Your task to perform on an android device: uninstall "Google News" Image 0: 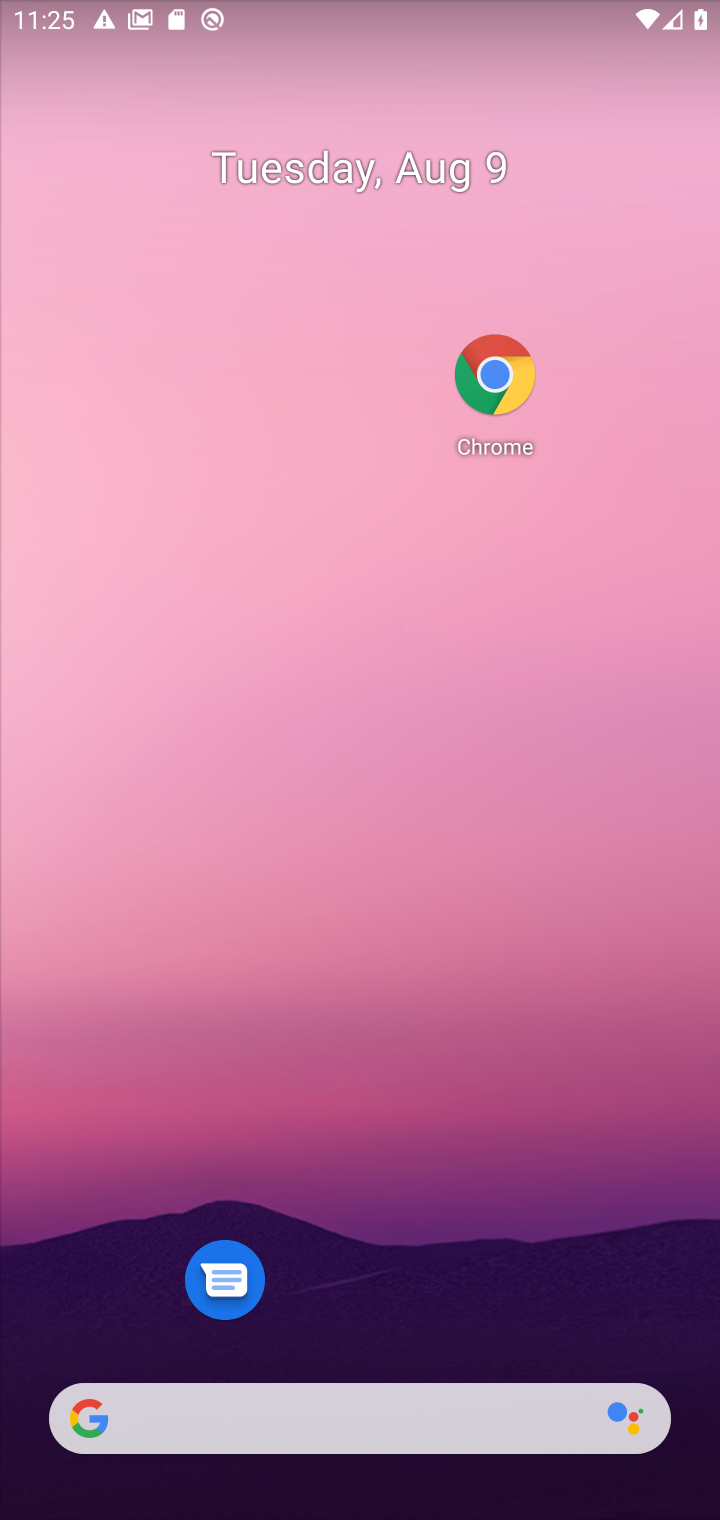
Step 0: drag from (442, 1361) to (364, 210)
Your task to perform on an android device: uninstall "Google News" Image 1: 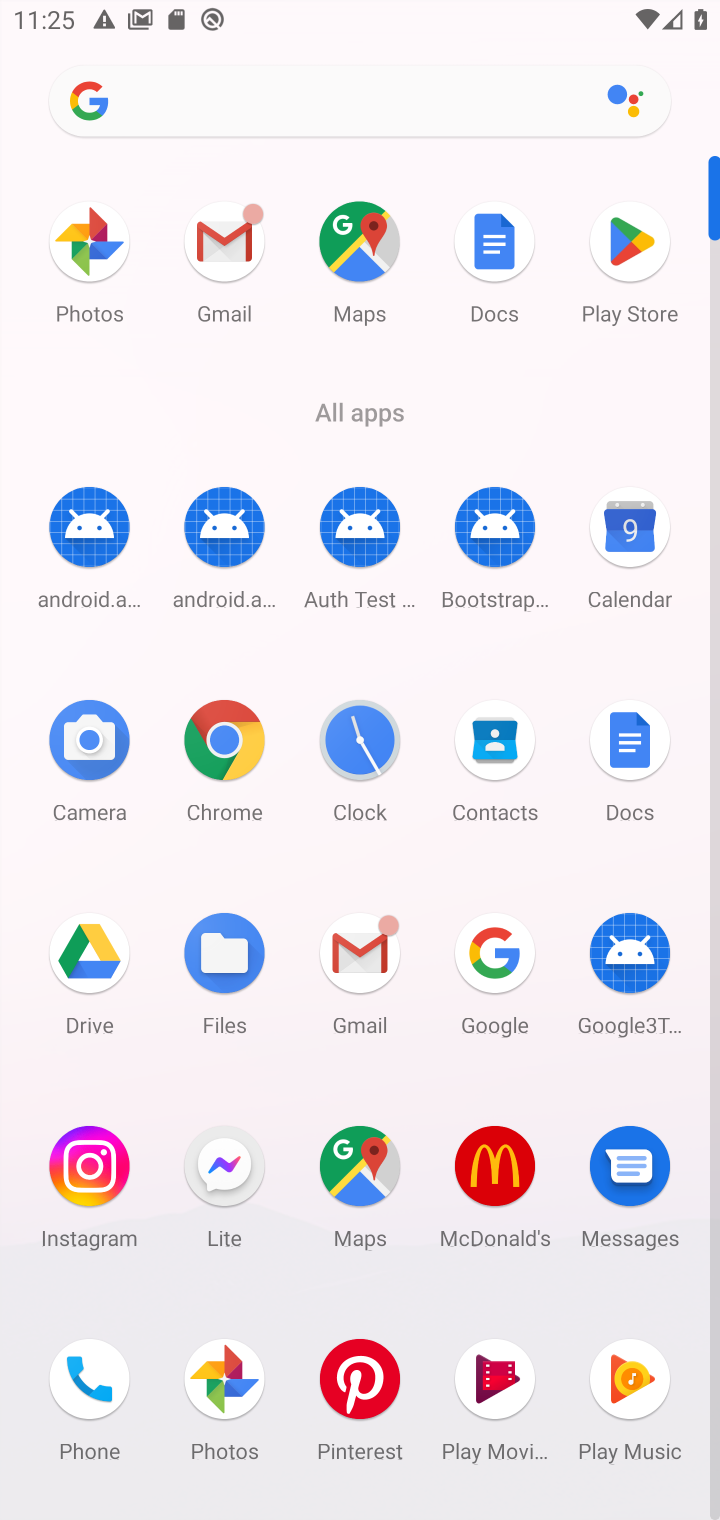
Step 1: click (615, 242)
Your task to perform on an android device: uninstall "Google News" Image 2: 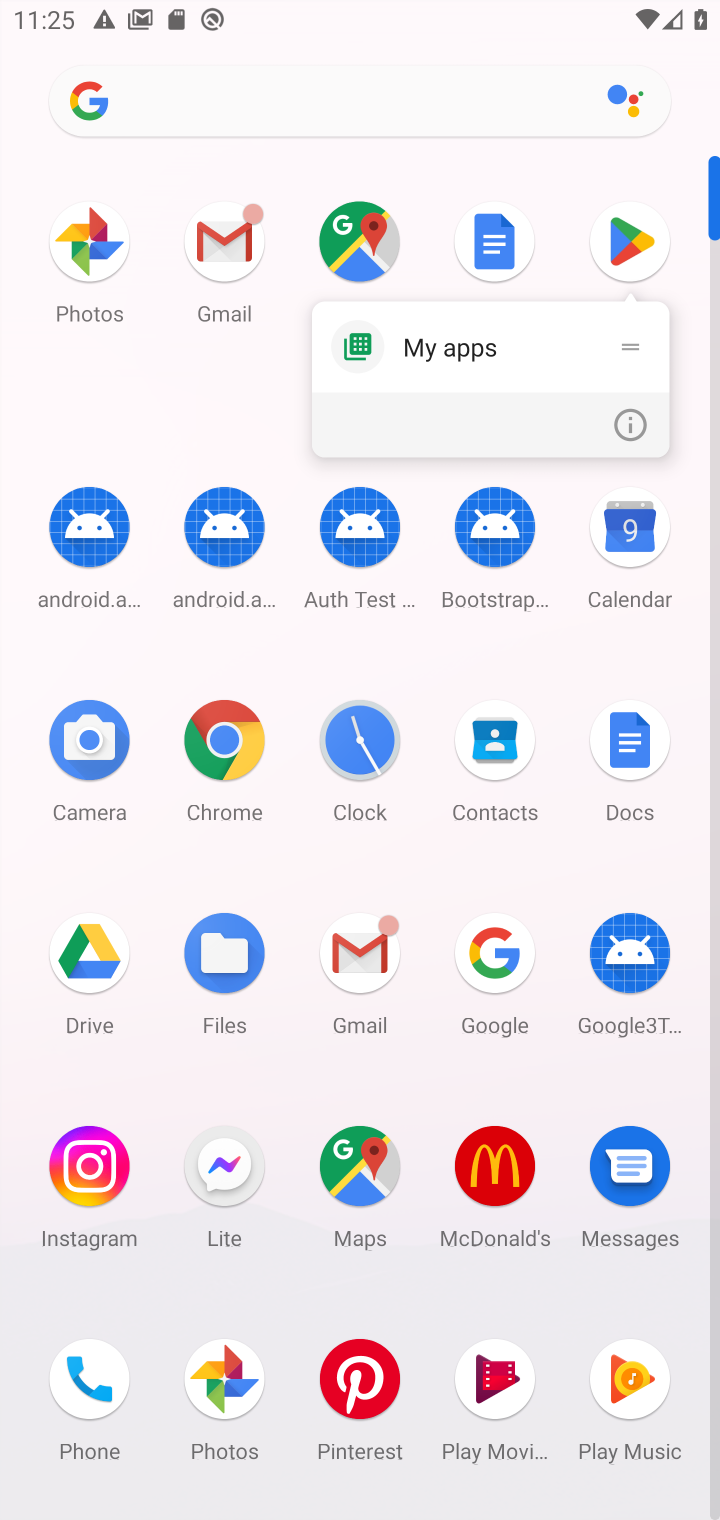
Step 2: click (557, 671)
Your task to perform on an android device: uninstall "Google News" Image 3: 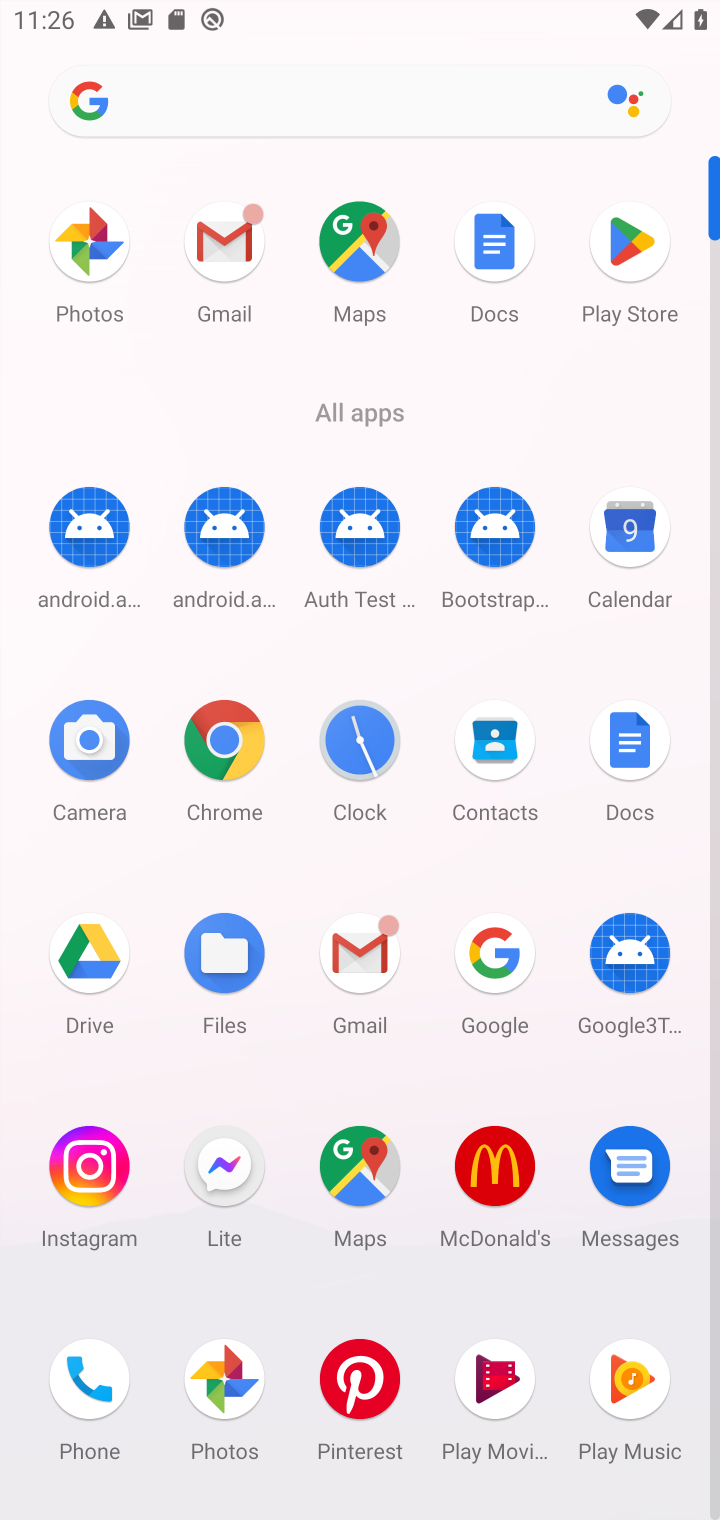
Step 3: click (622, 257)
Your task to perform on an android device: uninstall "Google News" Image 4: 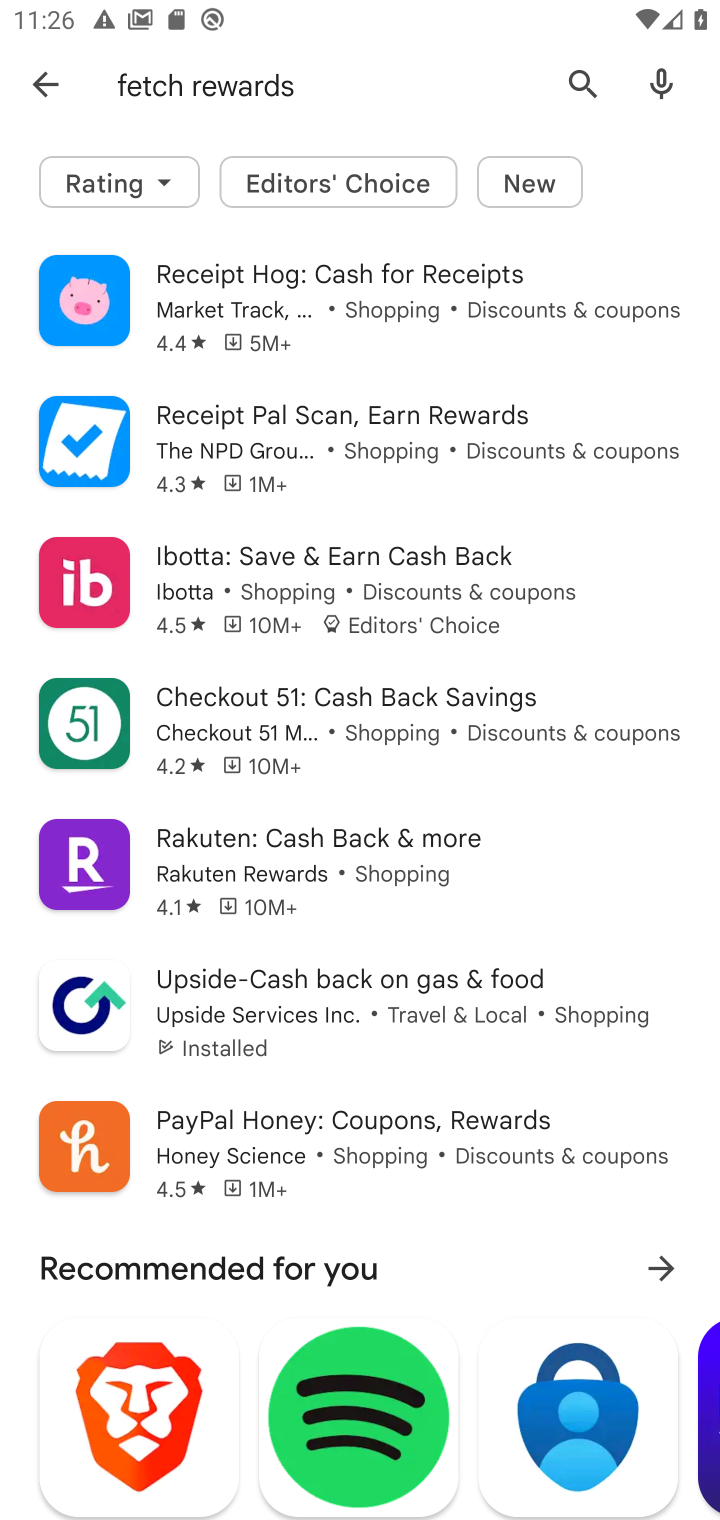
Step 4: click (120, 91)
Your task to perform on an android device: uninstall "Google News" Image 5: 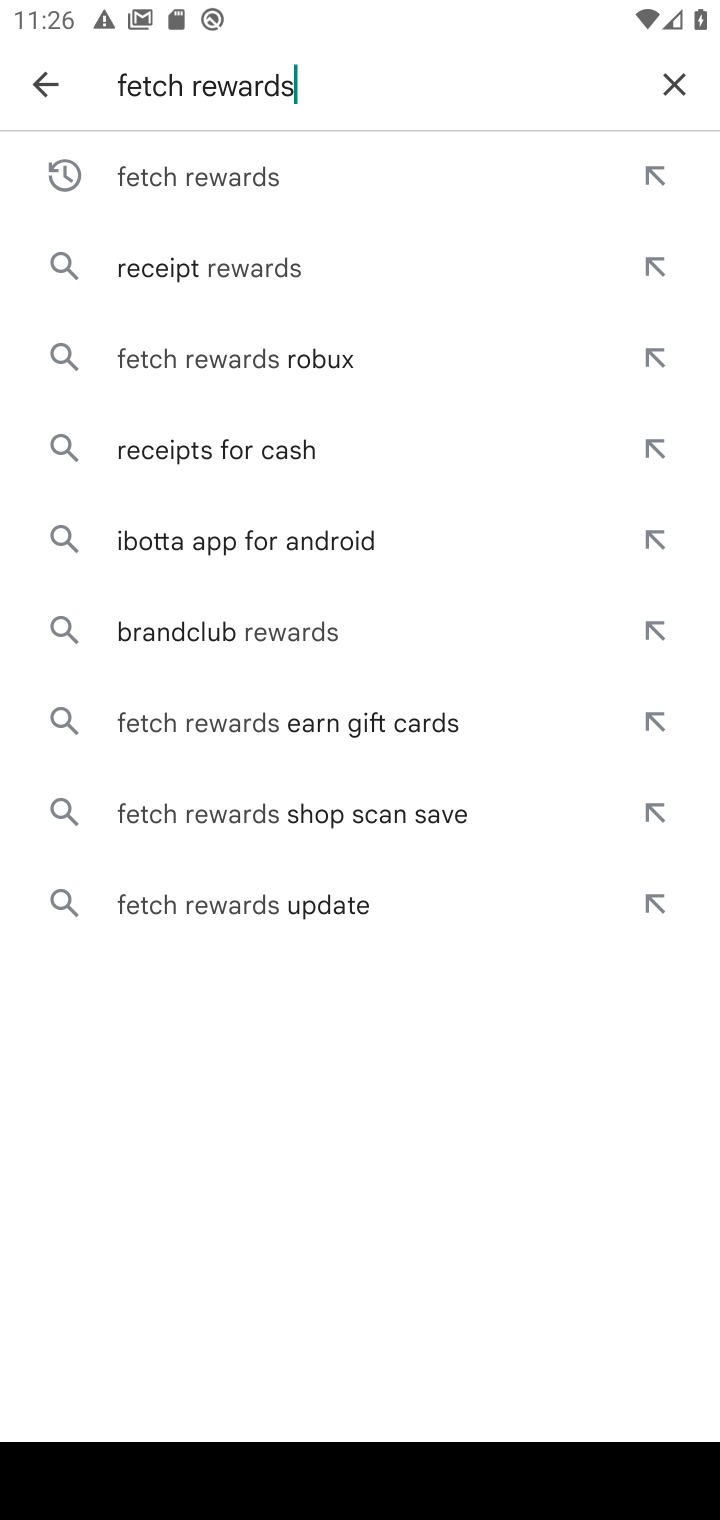
Step 5: click (663, 78)
Your task to perform on an android device: uninstall "Google News" Image 6: 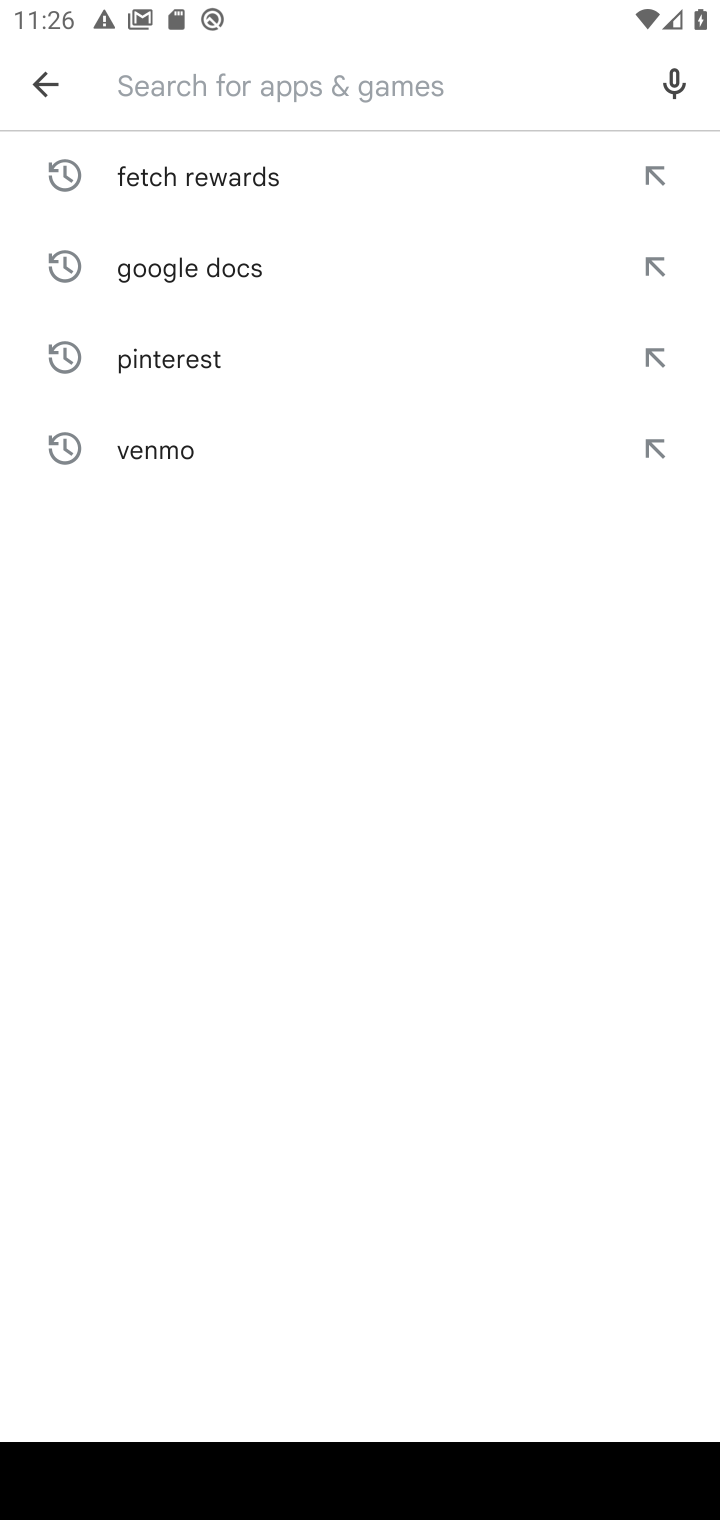
Step 6: type "Google News"
Your task to perform on an android device: uninstall "Google News" Image 7: 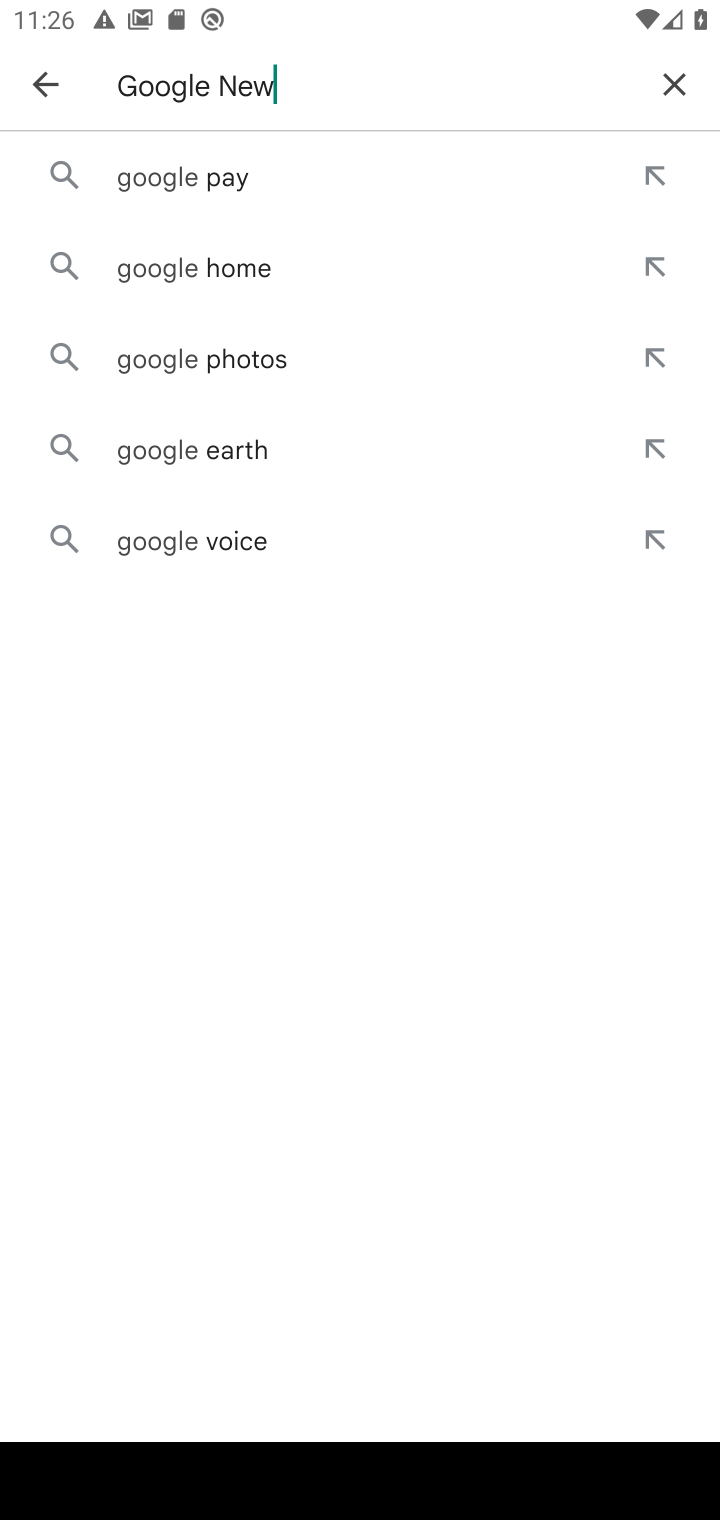
Step 7: type ""
Your task to perform on an android device: uninstall "Google News" Image 8: 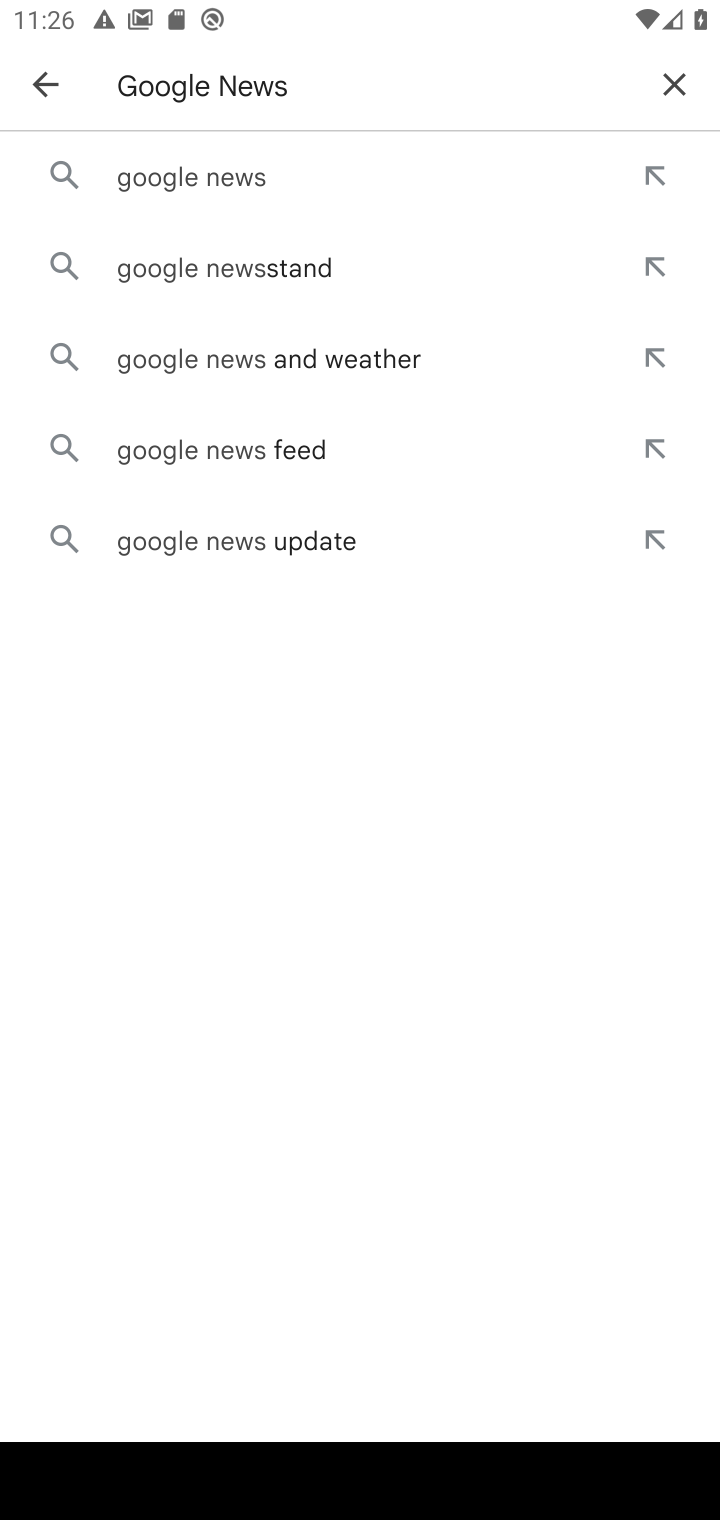
Step 8: click (153, 201)
Your task to perform on an android device: uninstall "Google News" Image 9: 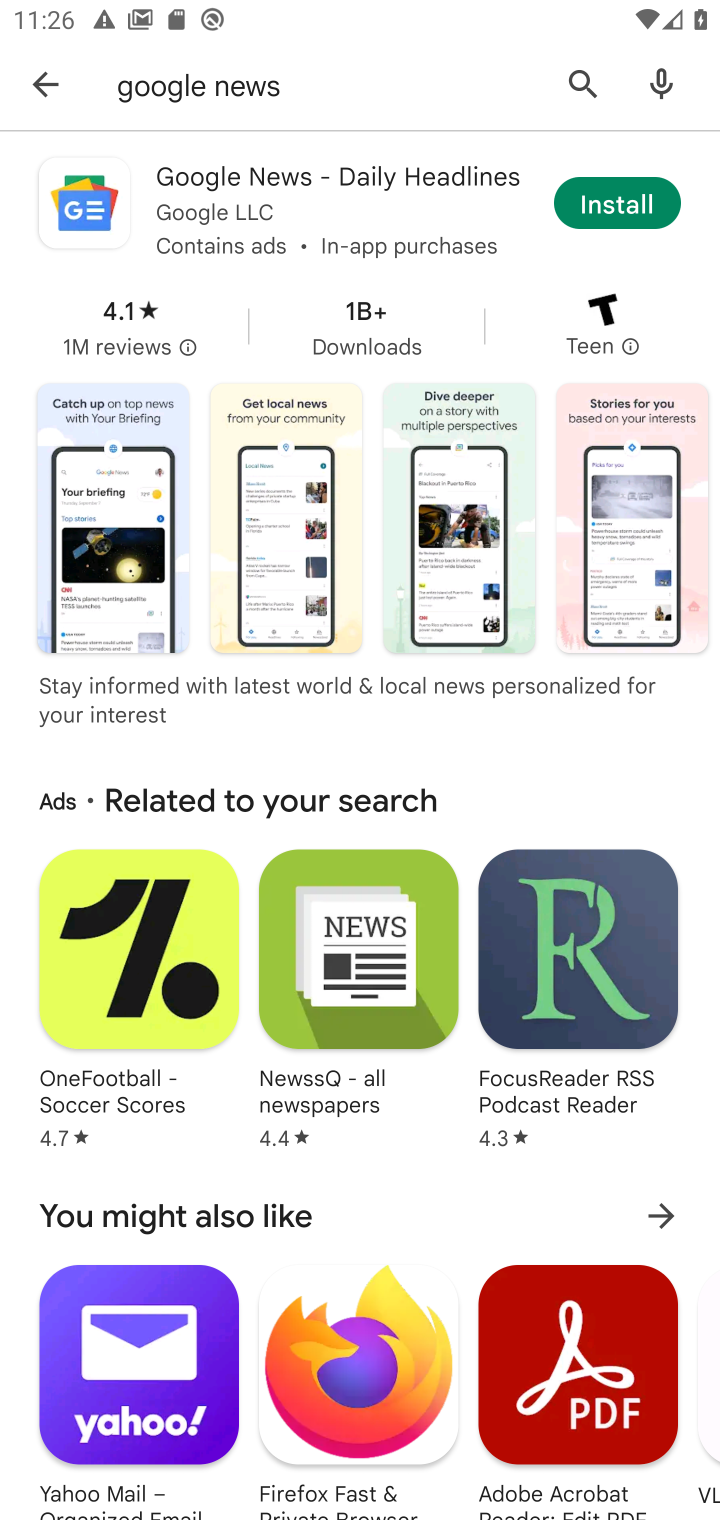
Step 9: click (356, 226)
Your task to perform on an android device: uninstall "Google News" Image 10: 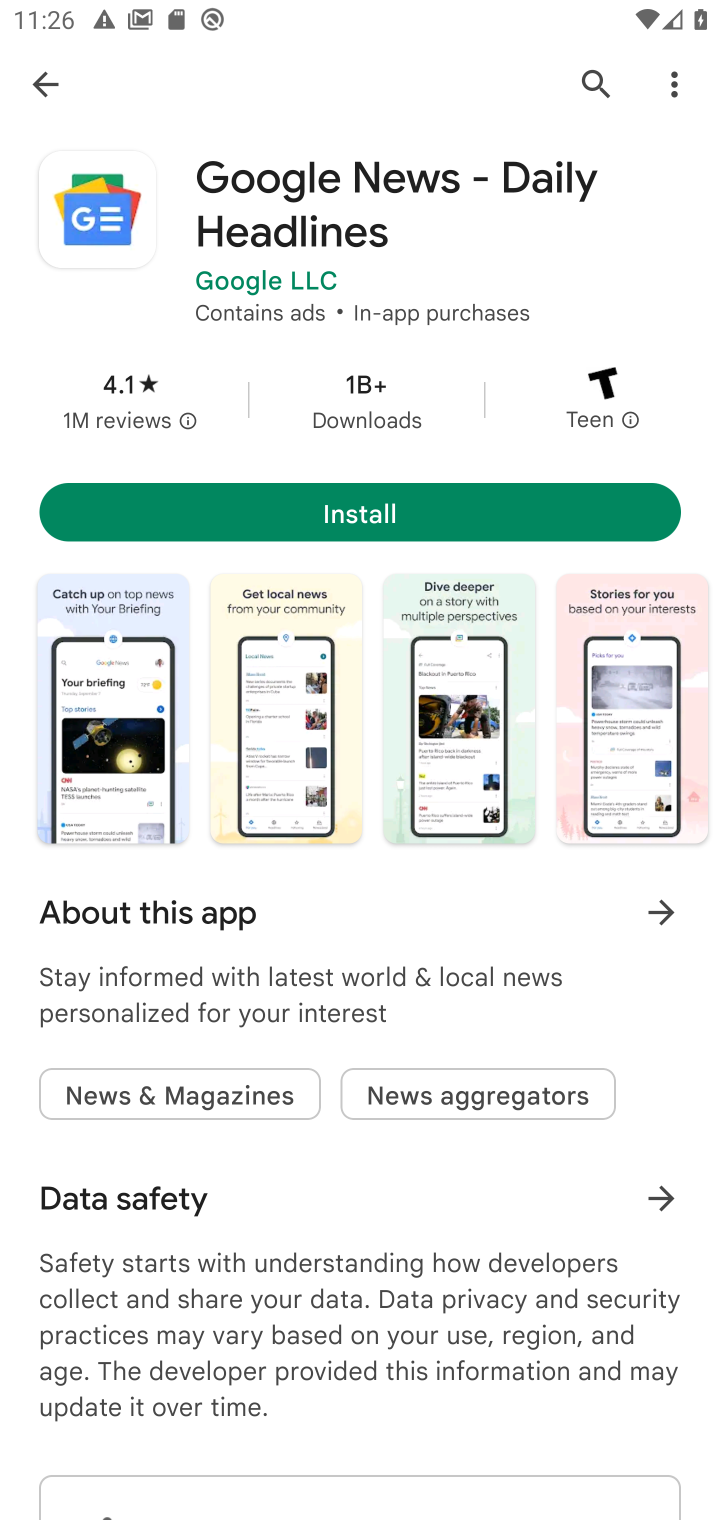
Step 10: task complete